Your task to perform on an android device: turn on wifi Image 0: 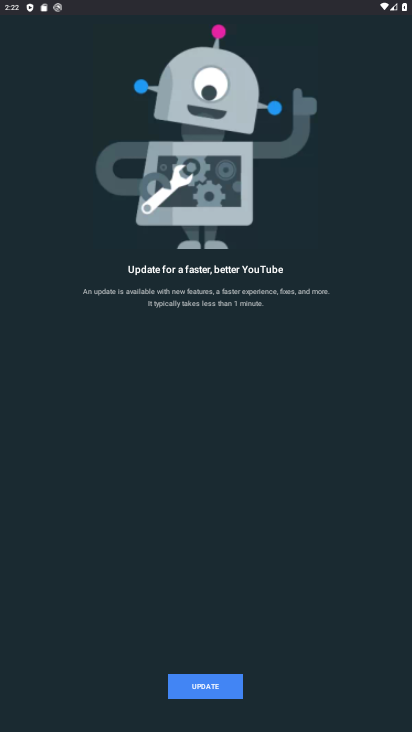
Step 0: press home button
Your task to perform on an android device: turn on wifi Image 1: 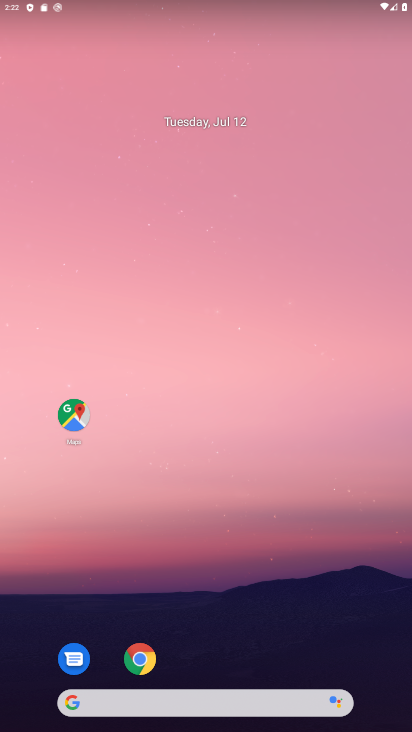
Step 1: drag from (196, 688) to (123, 174)
Your task to perform on an android device: turn on wifi Image 2: 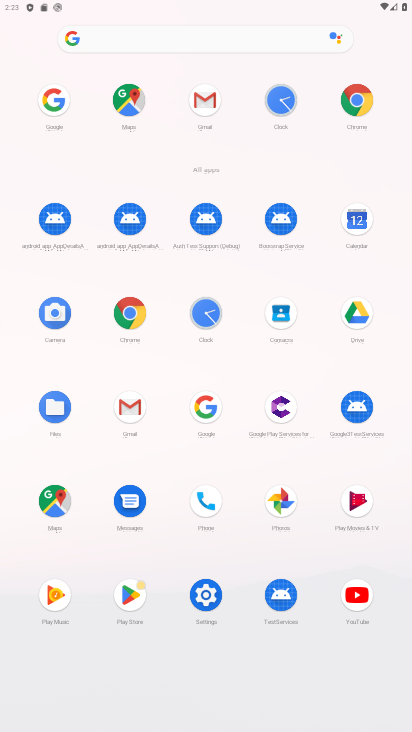
Step 2: click (206, 598)
Your task to perform on an android device: turn on wifi Image 3: 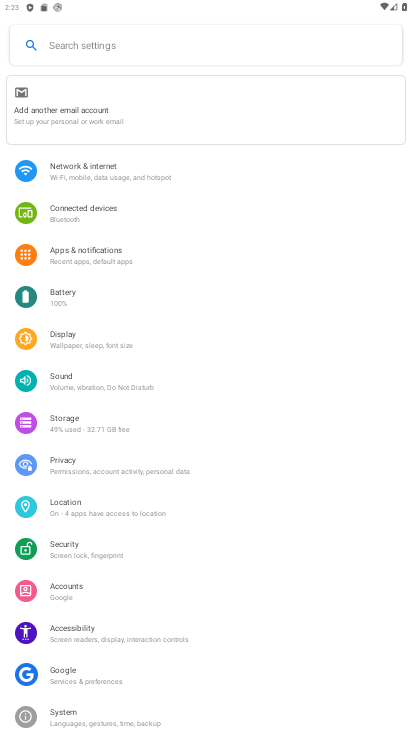
Step 3: click (104, 174)
Your task to perform on an android device: turn on wifi Image 4: 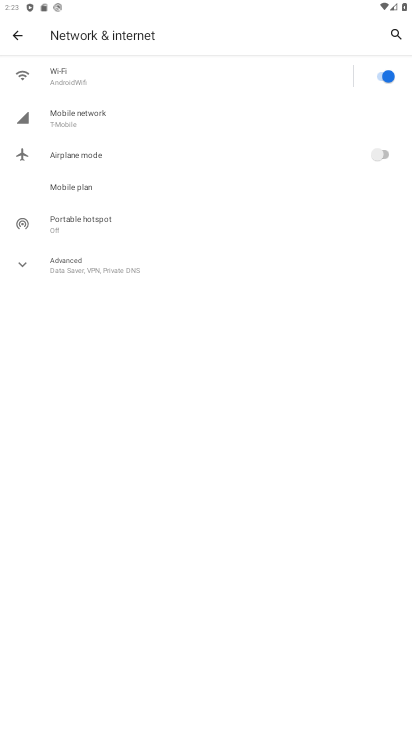
Step 4: task complete